Your task to perform on an android device: read, delete, or share a saved page in the chrome app Image 0: 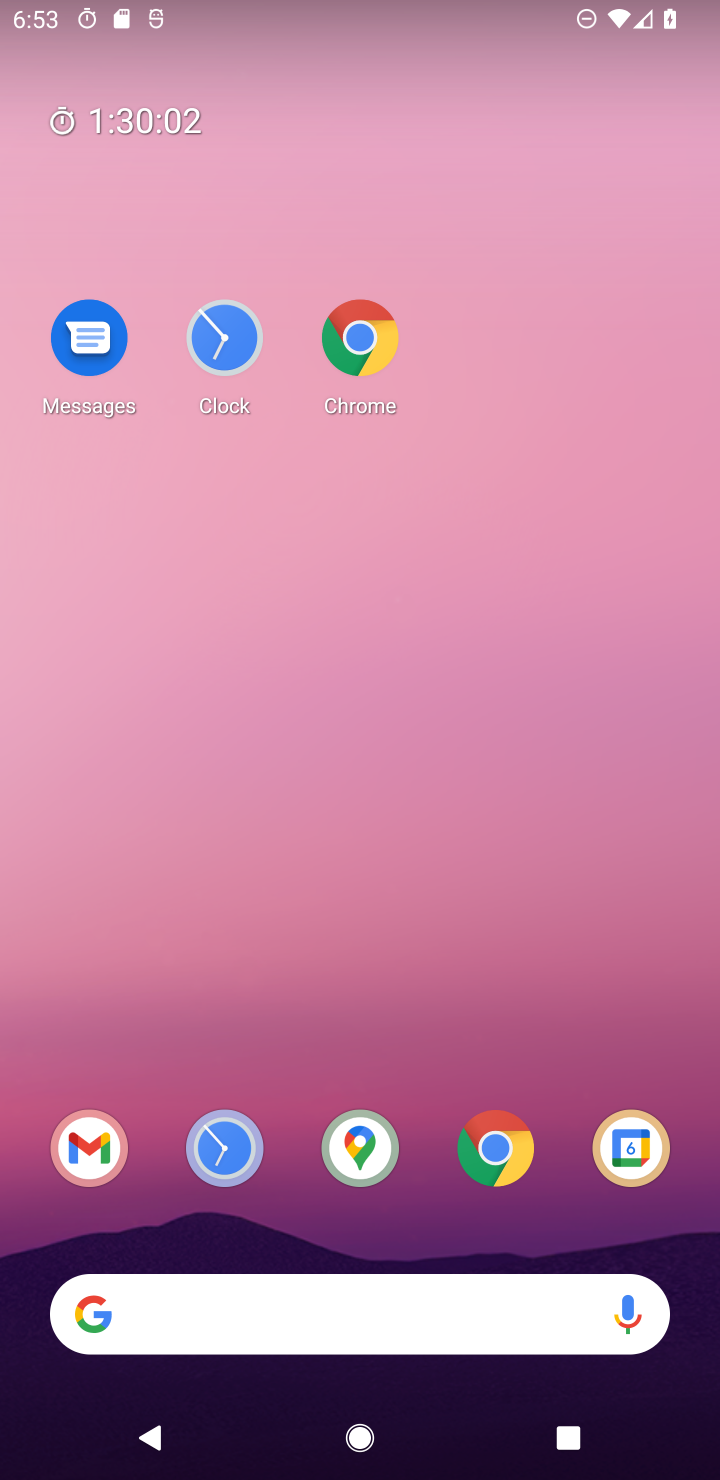
Step 0: drag from (207, 41) to (664, 883)
Your task to perform on an android device: read, delete, or share a saved page in the chrome app Image 1: 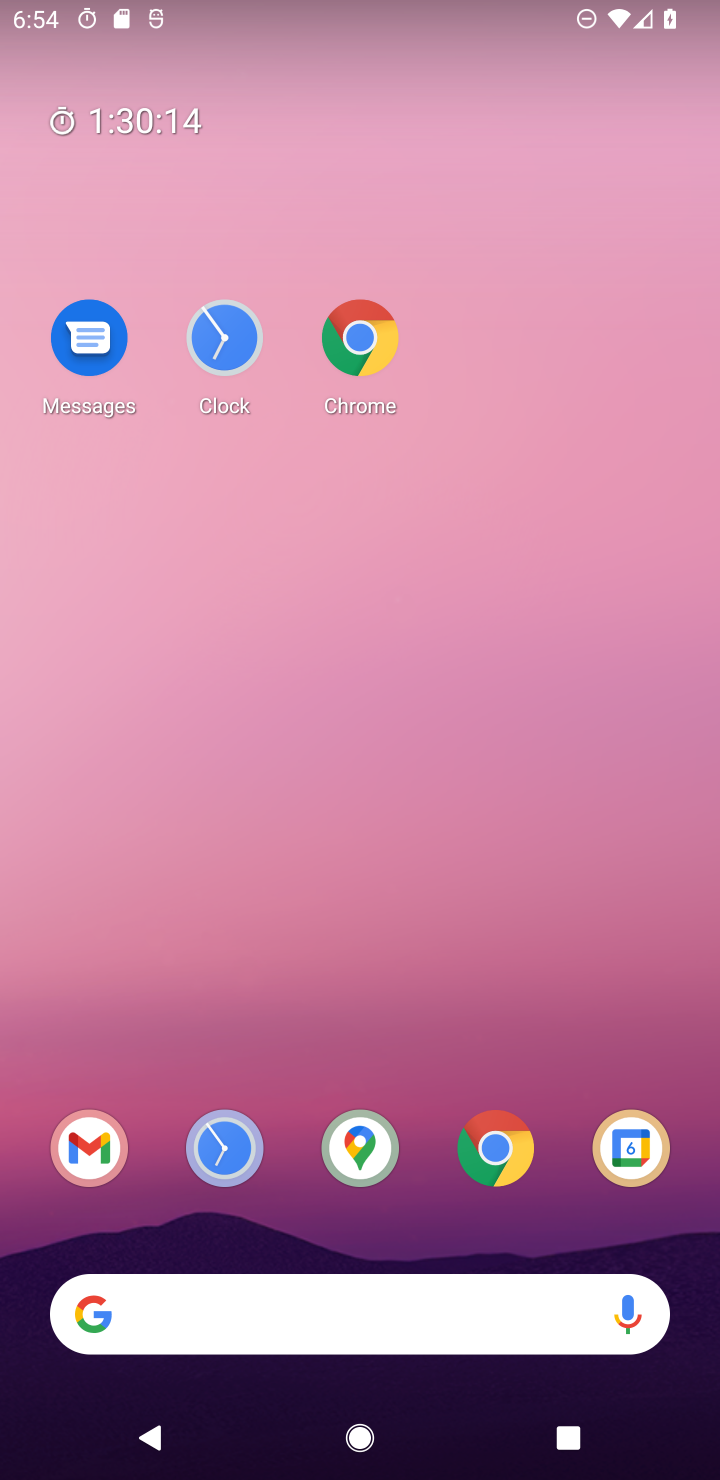
Step 1: drag from (382, 1242) to (456, 148)
Your task to perform on an android device: read, delete, or share a saved page in the chrome app Image 2: 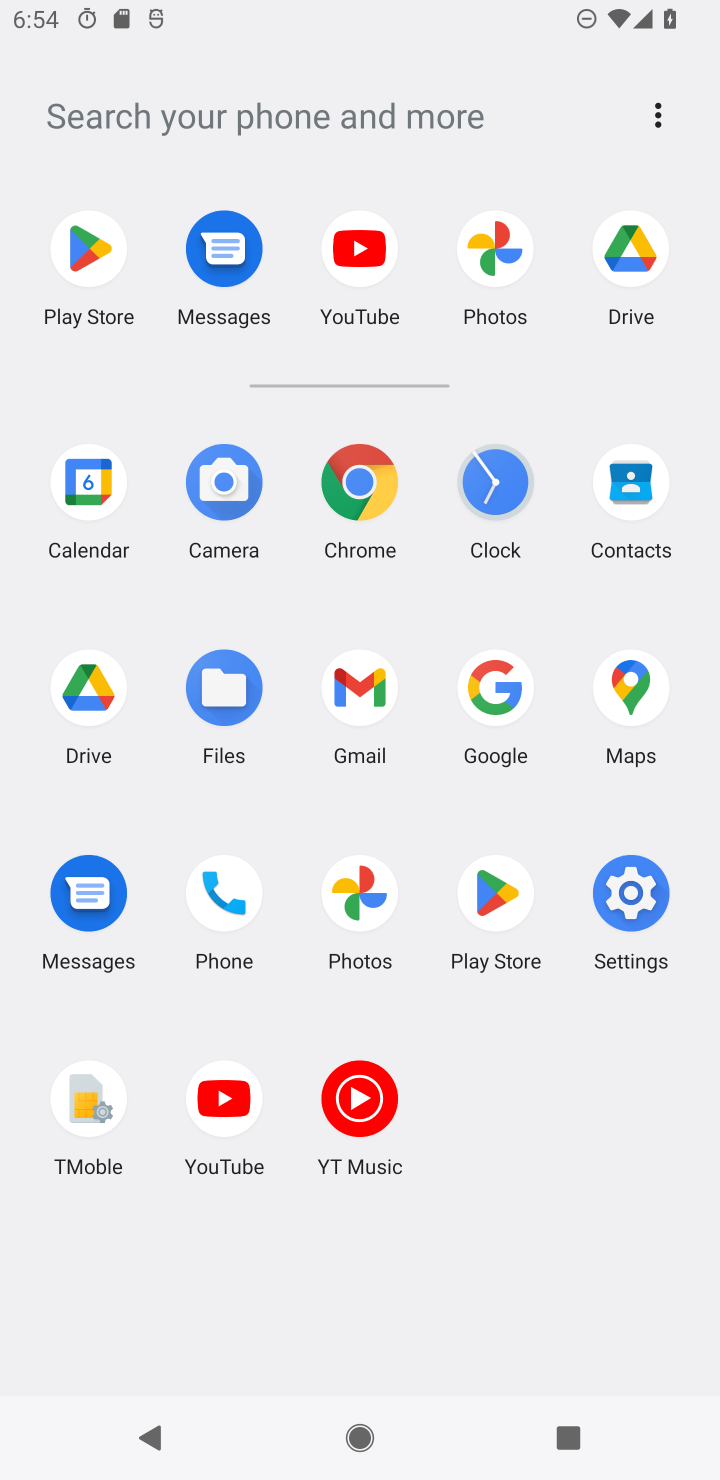
Step 2: click (358, 492)
Your task to perform on an android device: read, delete, or share a saved page in the chrome app Image 3: 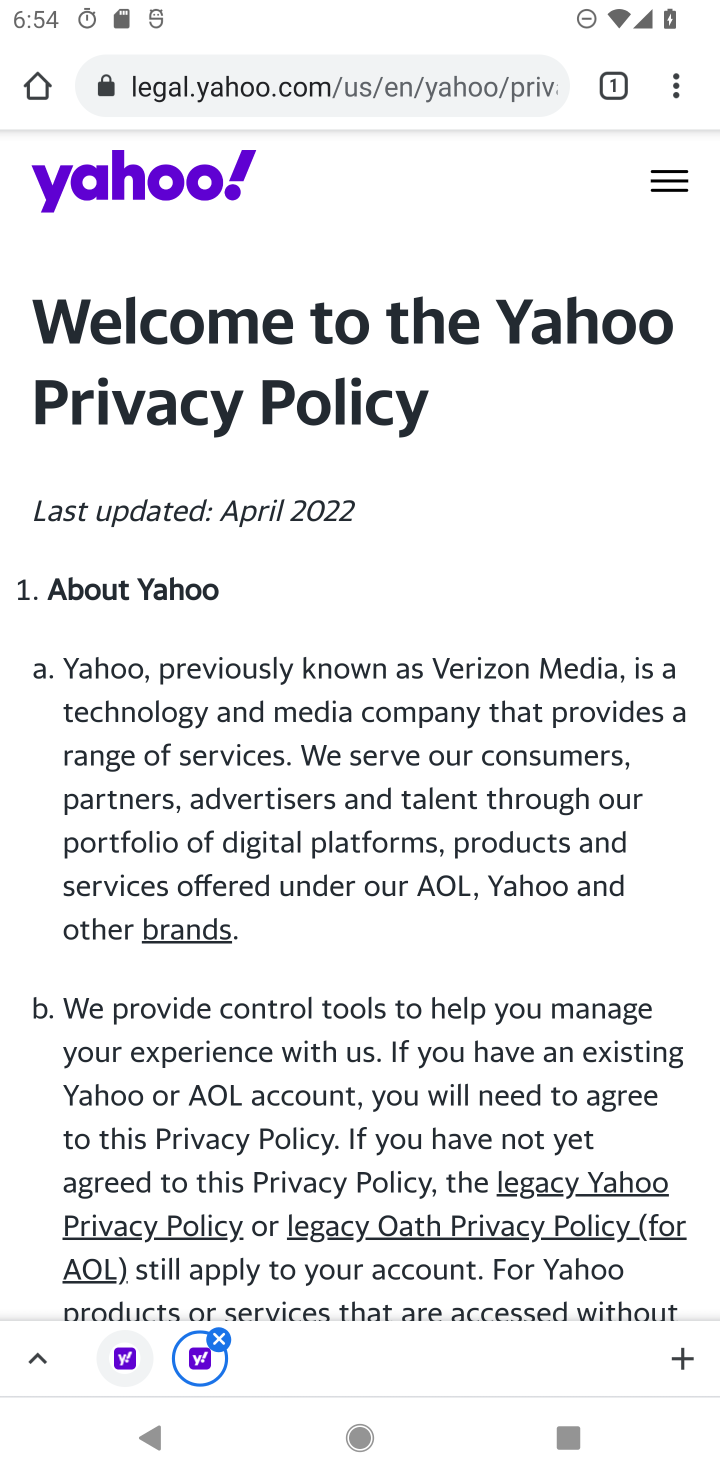
Step 3: drag from (361, 380) to (399, 1376)
Your task to perform on an android device: read, delete, or share a saved page in the chrome app Image 4: 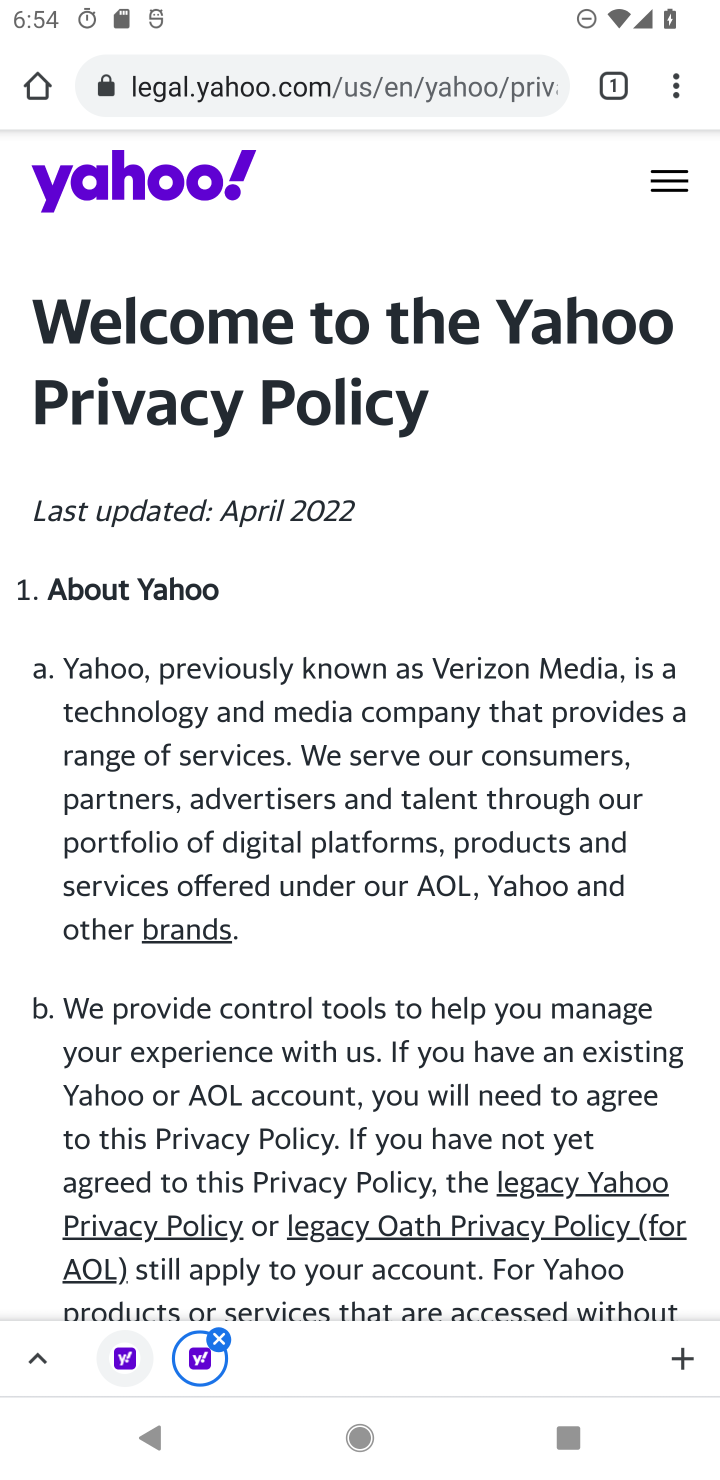
Step 4: drag from (670, 80) to (458, 575)
Your task to perform on an android device: read, delete, or share a saved page in the chrome app Image 5: 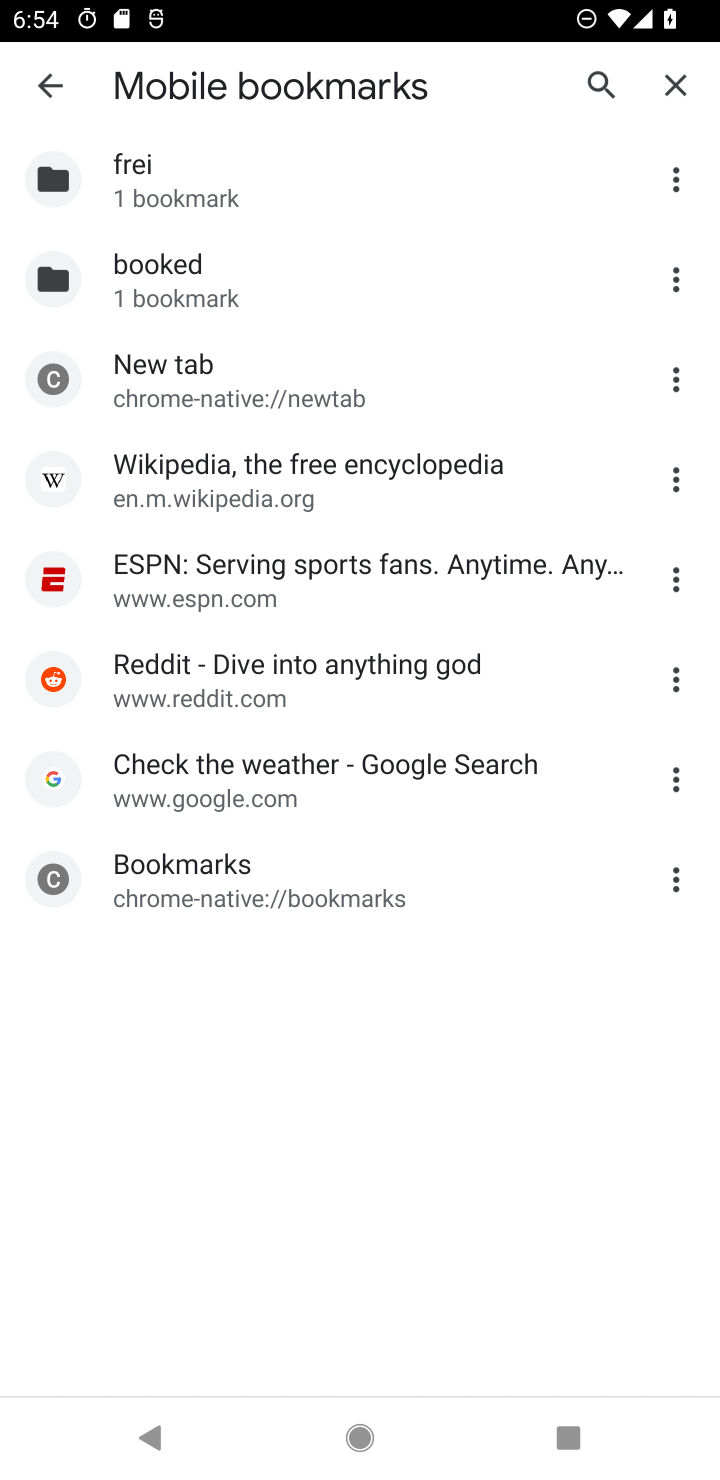
Step 5: drag from (376, 997) to (371, 544)
Your task to perform on an android device: read, delete, or share a saved page in the chrome app Image 6: 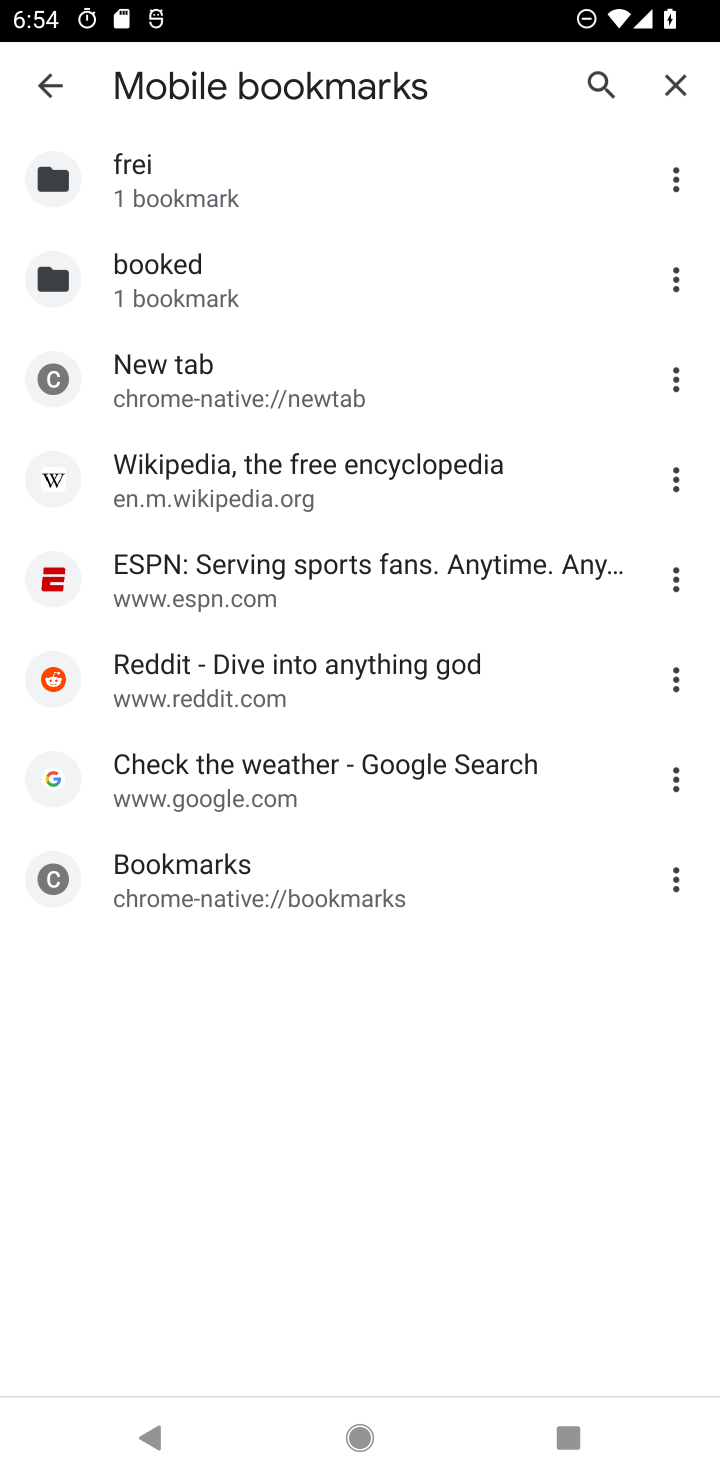
Step 6: click (157, 475)
Your task to perform on an android device: read, delete, or share a saved page in the chrome app Image 7: 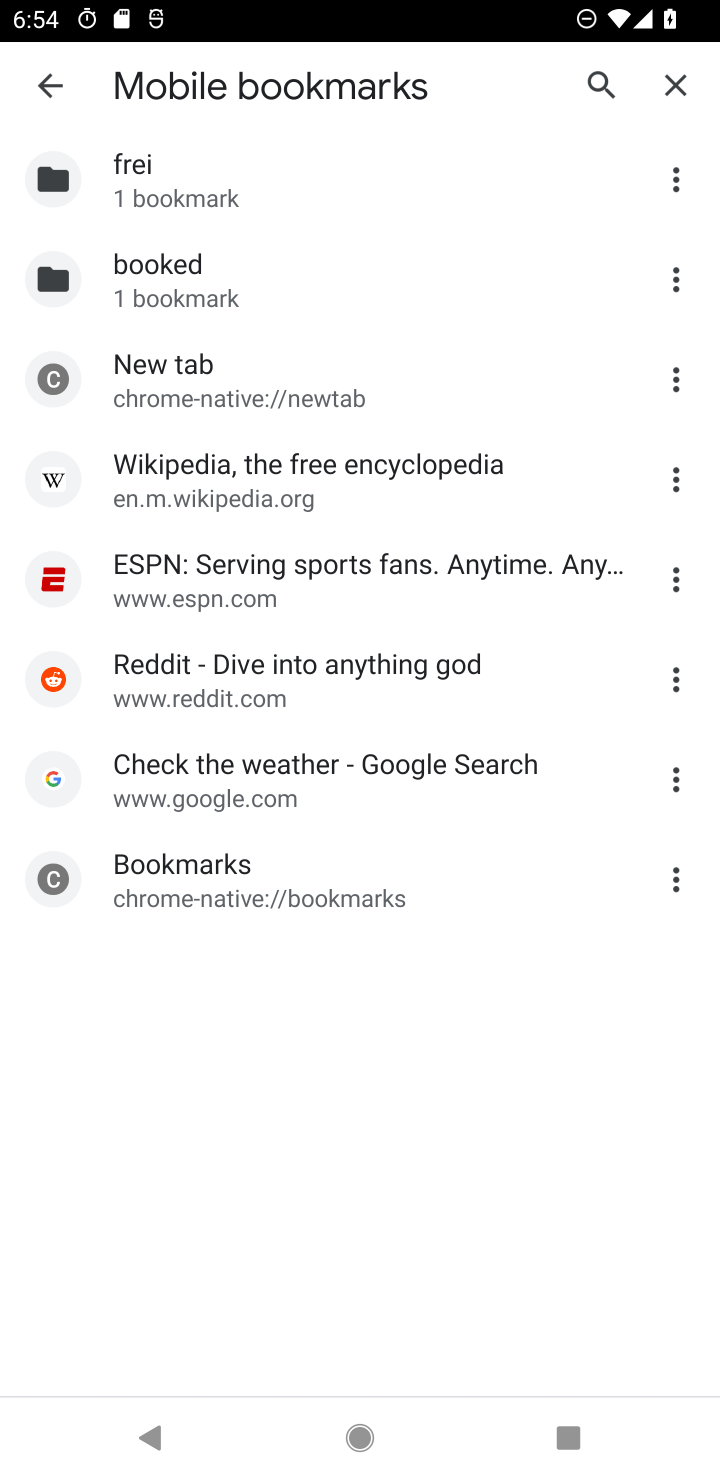
Step 7: task complete